Your task to perform on an android device: turn on improve location accuracy Image 0: 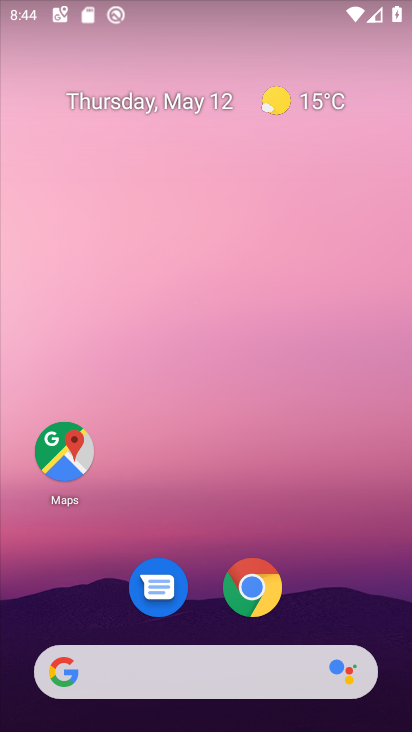
Step 0: drag from (374, 633) to (254, 60)
Your task to perform on an android device: turn on improve location accuracy Image 1: 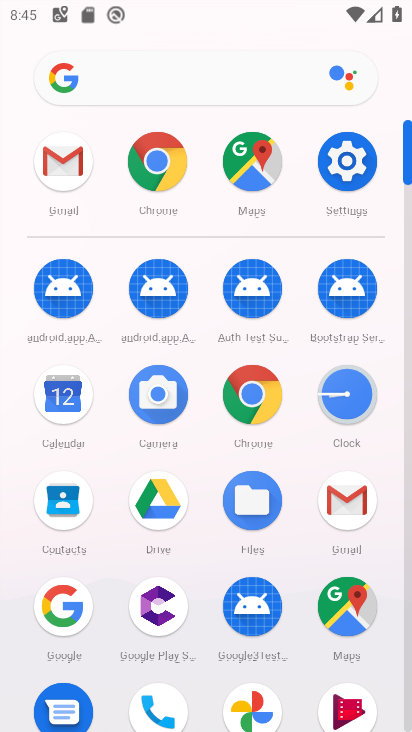
Step 1: click (341, 182)
Your task to perform on an android device: turn on improve location accuracy Image 2: 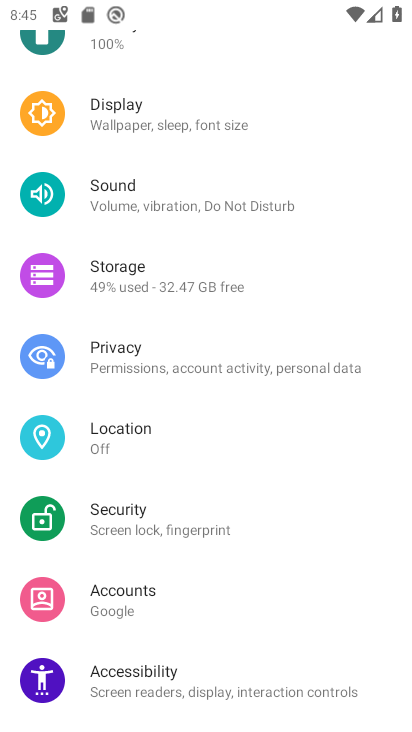
Step 2: click (192, 446)
Your task to perform on an android device: turn on improve location accuracy Image 3: 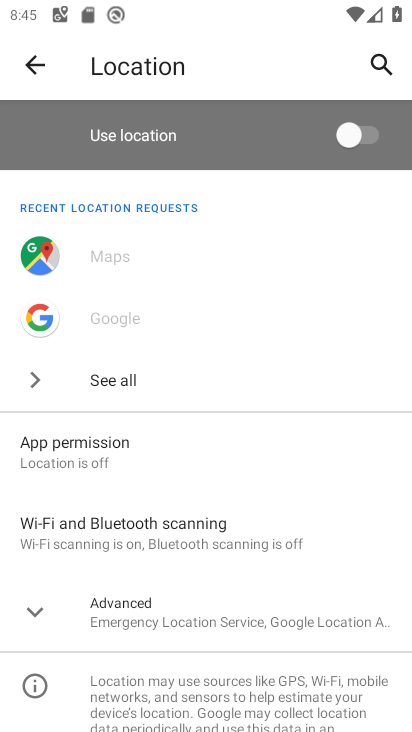
Step 3: click (160, 588)
Your task to perform on an android device: turn on improve location accuracy Image 4: 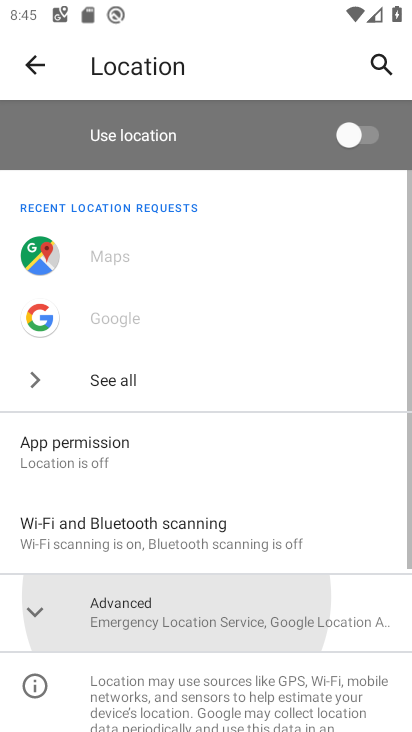
Step 4: click (160, 588)
Your task to perform on an android device: turn on improve location accuracy Image 5: 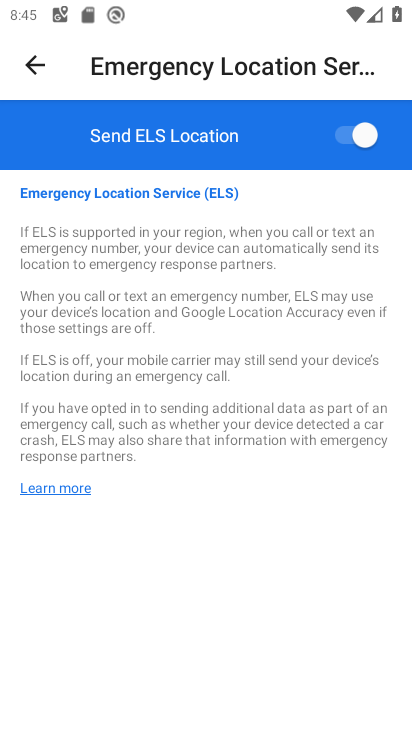
Step 5: press back button
Your task to perform on an android device: turn on improve location accuracy Image 6: 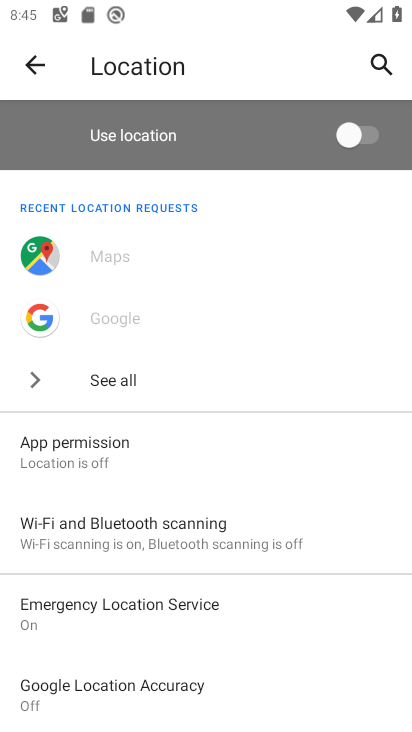
Step 6: drag from (106, 539) to (105, 322)
Your task to perform on an android device: turn on improve location accuracy Image 7: 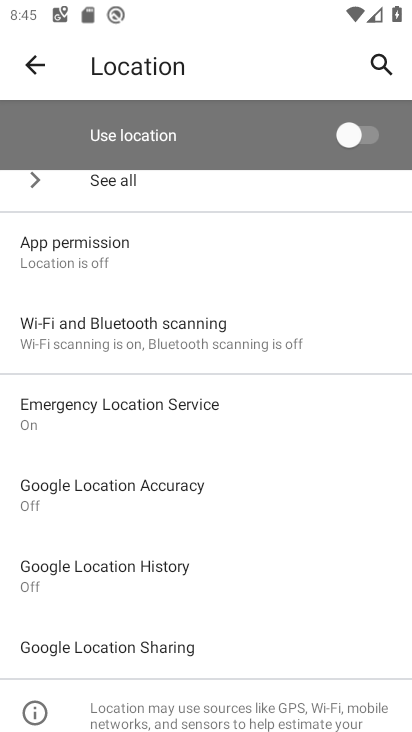
Step 7: click (161, 482)
Your task to perform on an android device: turn on improve location accuracy Image 8: 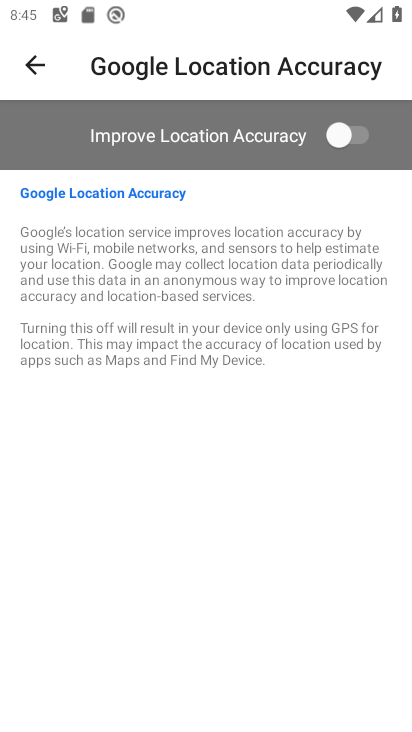
Step 8: click (341, 131)
Your task to perform on an android device: turn on improve location accuracy Image 9: 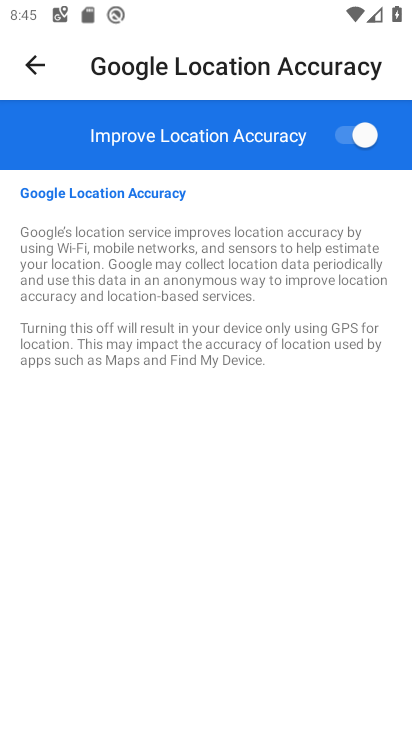
Step 9: task complete